Your task to perform on an android device: set default search engine in the chrome app Image 0: 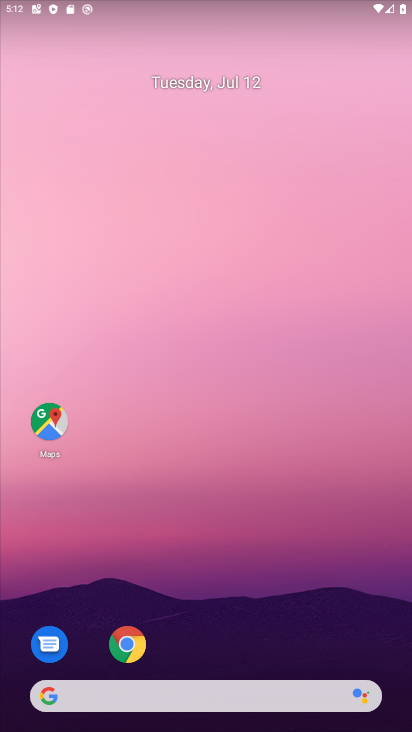
Step 0: press home button
Your task to perform on an android device: set default search engine in the chrome app Image 1: 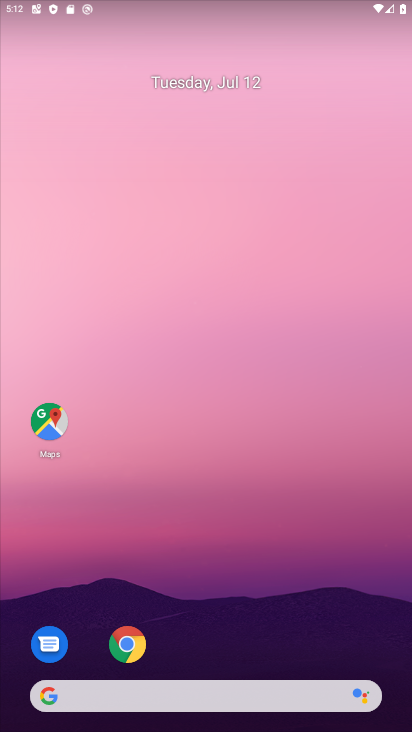
Step 1: click (295, 644)
Your task to perform on an android device: set default search engine in the chrome app Image 2: 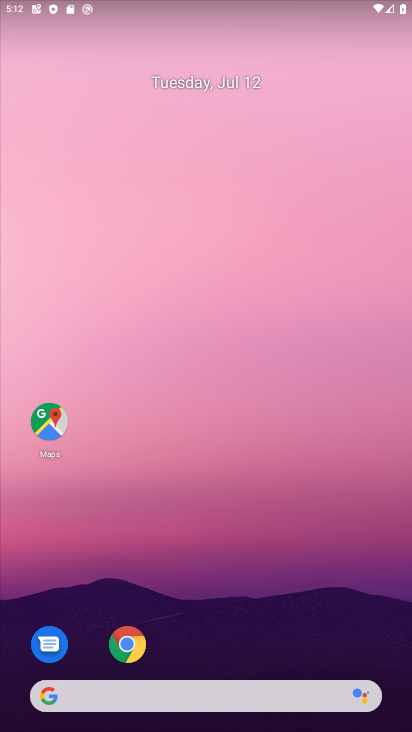
Step 2: drag from (294, 497) to (312, 94)
Your task to perform on an android device: set default search engine in the chrome app Image 3: 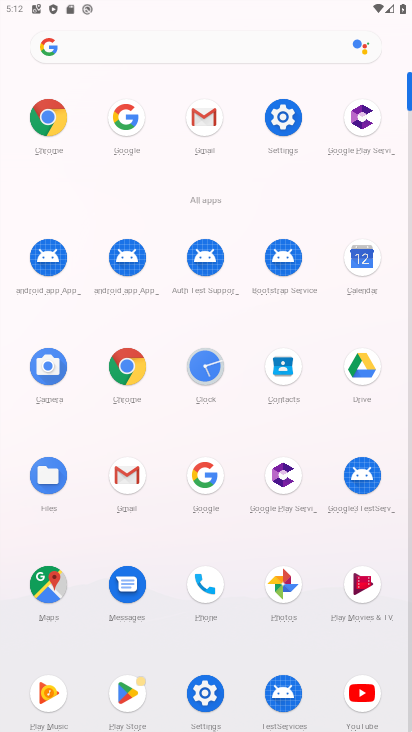
Step 3: click (69, 124)
Your task to perform on an android device: set default search engine in the chrome app Image 4: 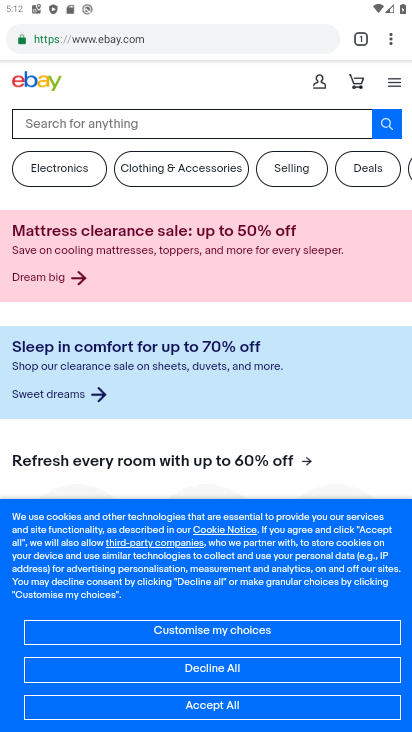
Step 4: click (395, 29)
Your task to perform on an android device: set default search engine in the chrome app Image 5: 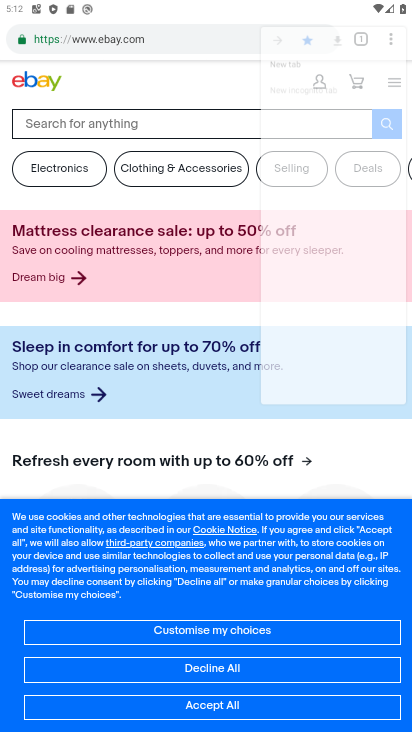
Step 5: drag from (395, 29) to (236, 463)
Your task to perform on an android device: set default search engine in the chrome app Image 6: 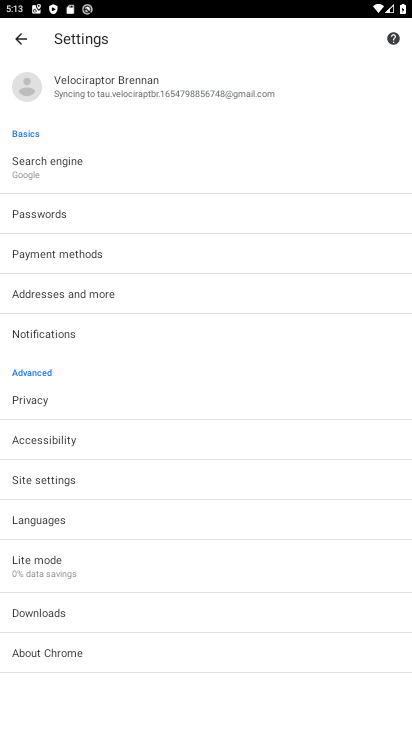
Step 6: click (64, 170)
Your task to perform on an android device: set default search engine in the chrome app Image 7: 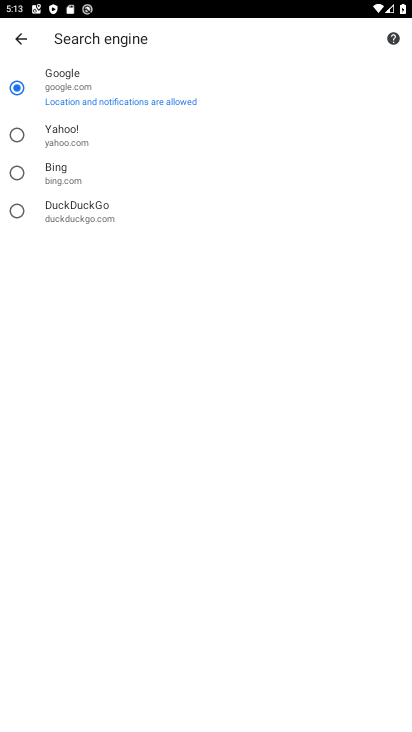
Step 7: click (76, 72)
Your task to perform on an android device: set default search engine in the chrome app Image 8: 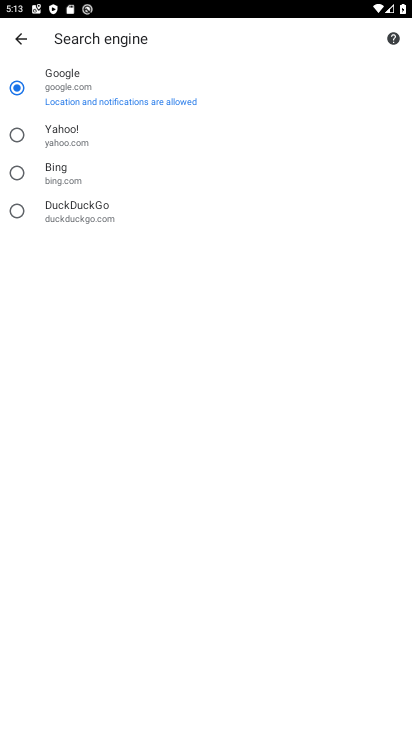
Step 8: task complete